Your task to perform on an android device: Open Wikipedia Image 0: 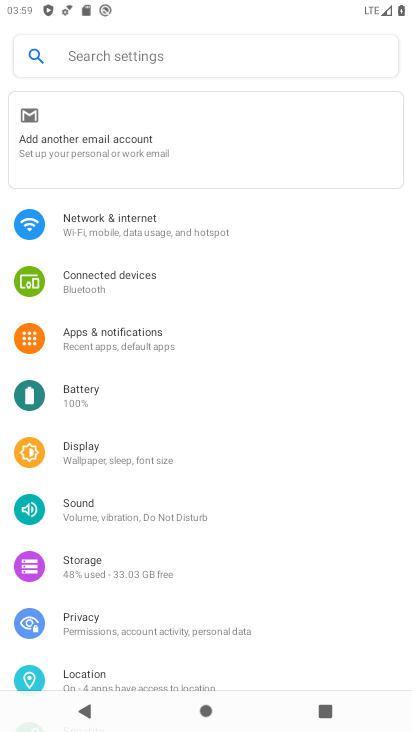
Step 0: drag from (103, 565) to (188, 264)
Your task to perform on an android device: Open Wikipedia Image 1: 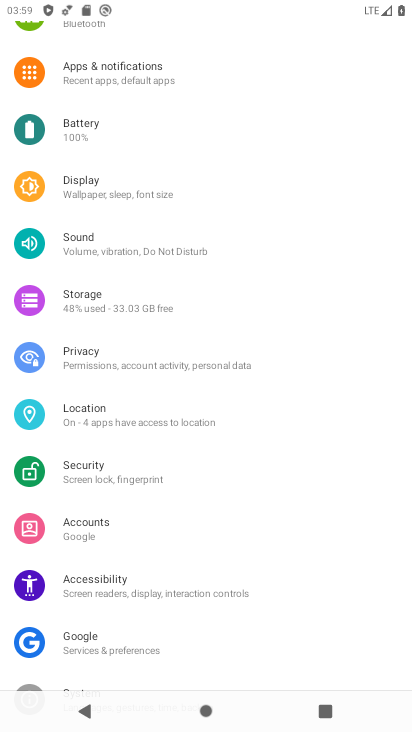
Step 1: drag from (206, 509) to (219, 366)
Your task to perform on an android device: Open Wikipedia Image 2: 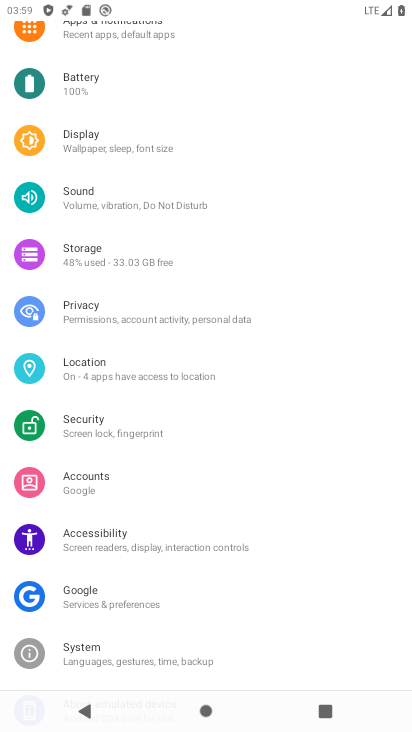
Step 2: press home button
Your task to perform on an android device: Open Wikipedia Image 3: 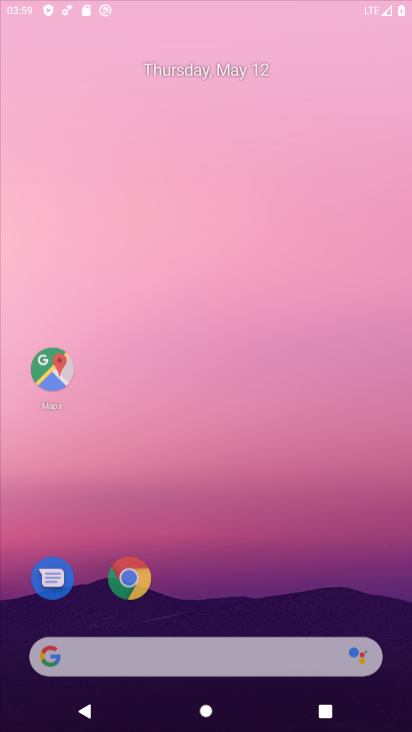
Step 3: drag from (170, 633) to (214, 195)
Your task to perform on an android device: Open Wikipedia Image 4: 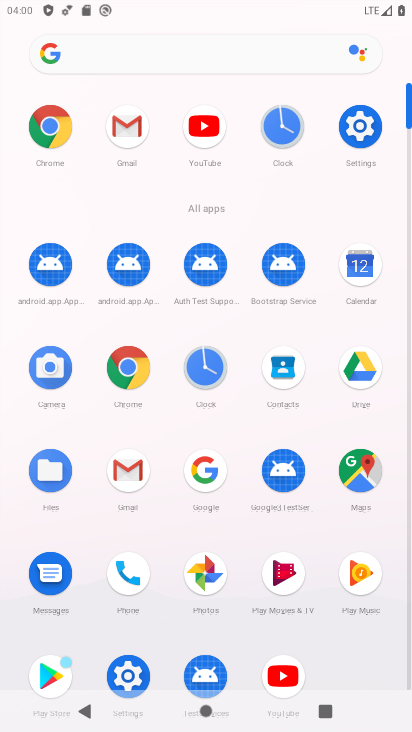
Step 4: click (116, 359)
Your task to perform on an android device: Open Wikipedia Image 5: 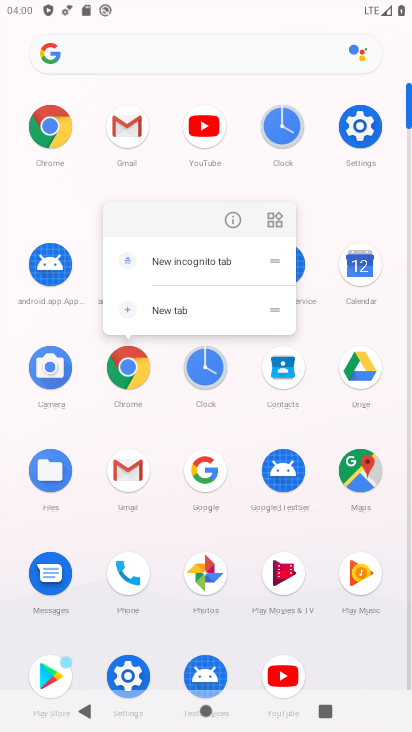
Step 5: click (230, 219)
Your task to perform on an android device: Open Wikipedia Image 6: 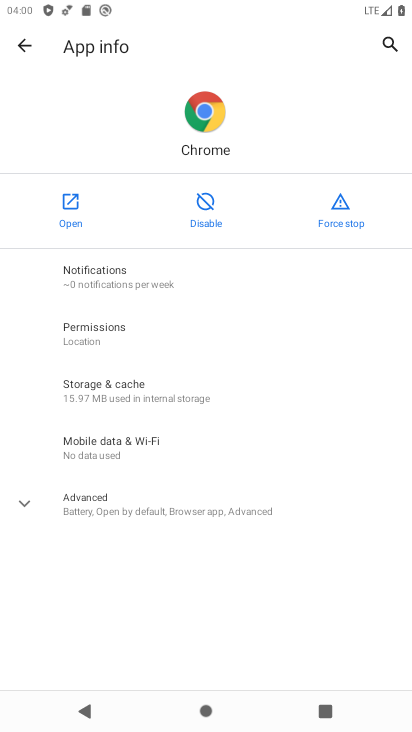
Step 6: click (90, 219)
Your task to perform on an android device: Open Wikipedia Image 7: 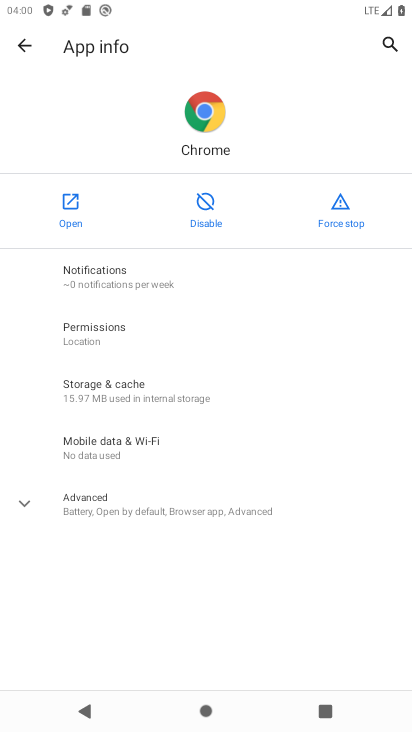
Step 7: click (90, 219)
Your task to perform on an android device: Open Wikipedia Image 8: 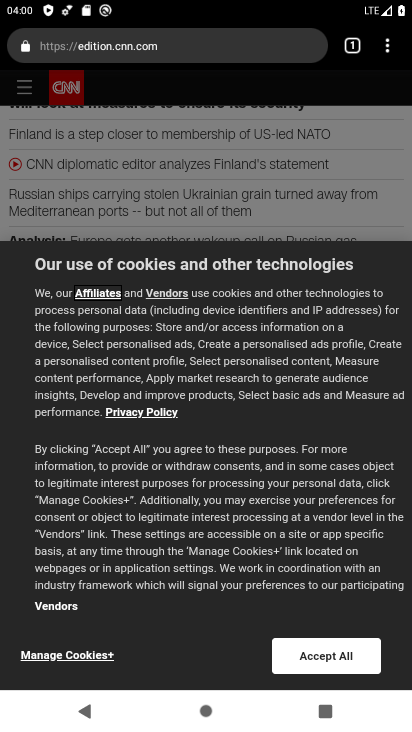
Step 8: click (232, 191)
Your task to perform on an android device: Open Wikipedia Image 9: 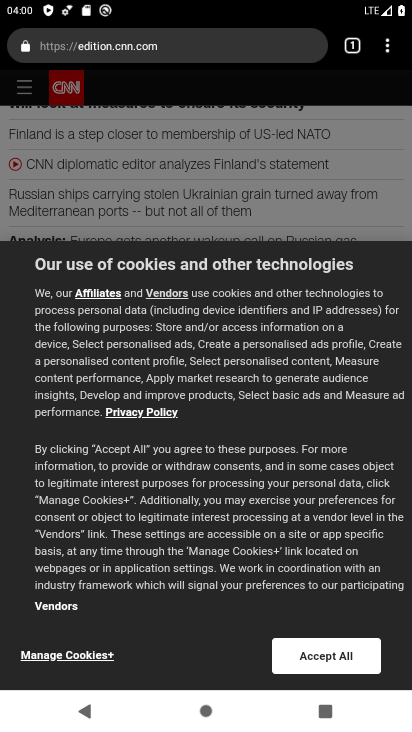
Step 9: click (354, 60)
Your task to perform on an android device: Open Wikipedia Image 10: 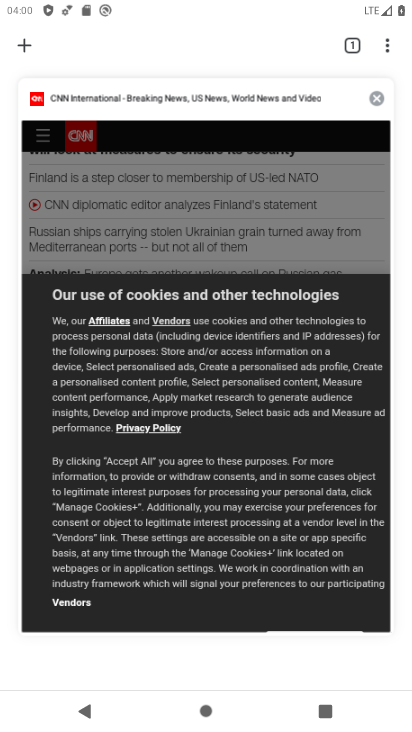
Step 10: click (23, 42)
Your task to perform on an android device: Open Wikipedia Image 11: 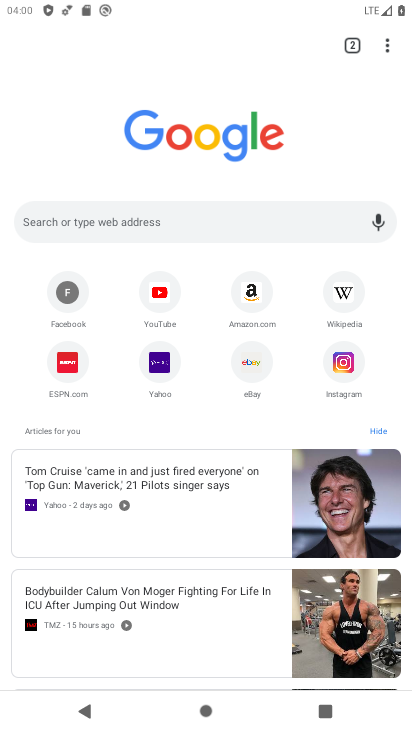
Step 11: click (342, 284)
Your task to perform on an android device: Open Wikipedia Image 12: 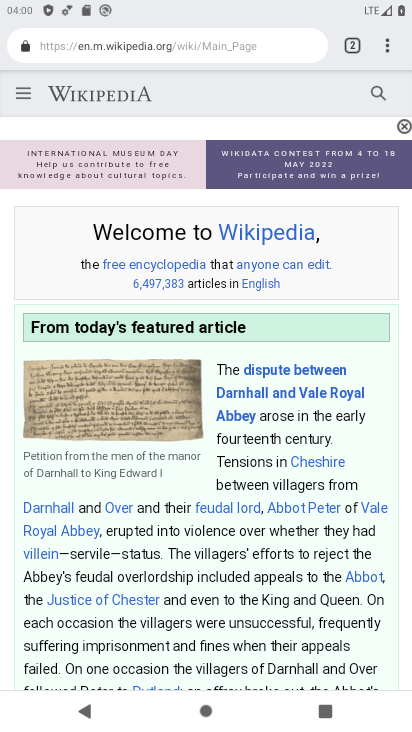
Step 12: task complete